Your task to perform on an android device: turn notification dots off Image 0: 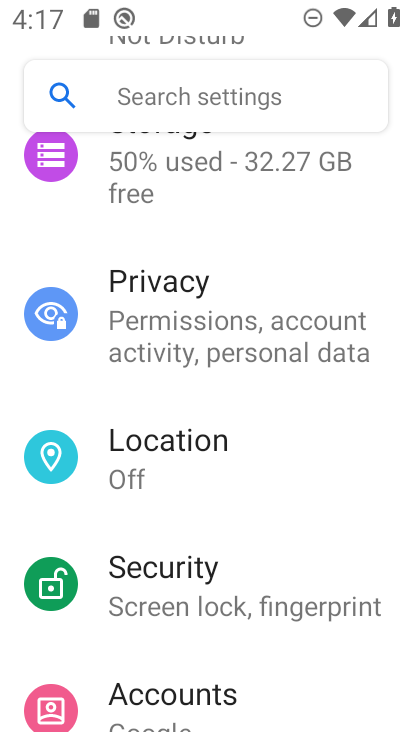
Step 0: press home button
Your task to perform on an android device: turn notification dots off Image 1: 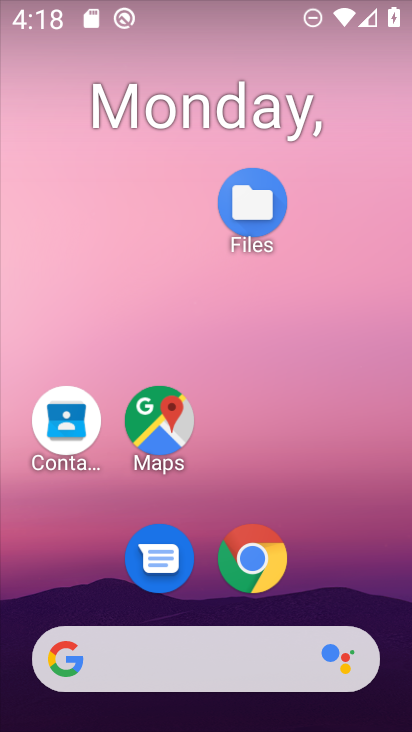
Step 1: drag from (257, 588) to (242, 9)
Your task to perform on an android device: turn notification dots off Image 2: 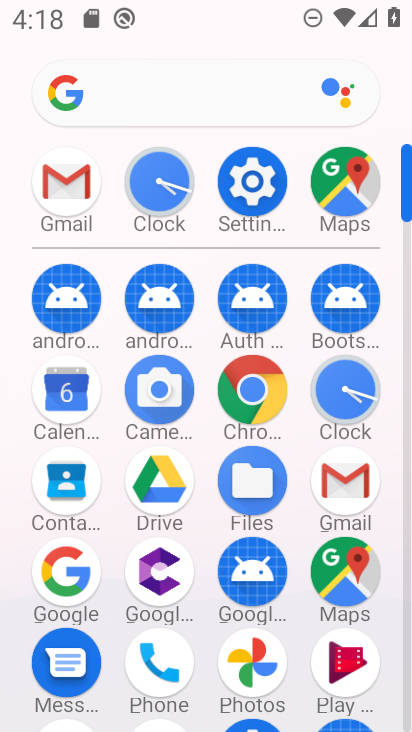
Step 2: click (270, 174)
Your task to perform on an android device: turn notification dots off Image 3: 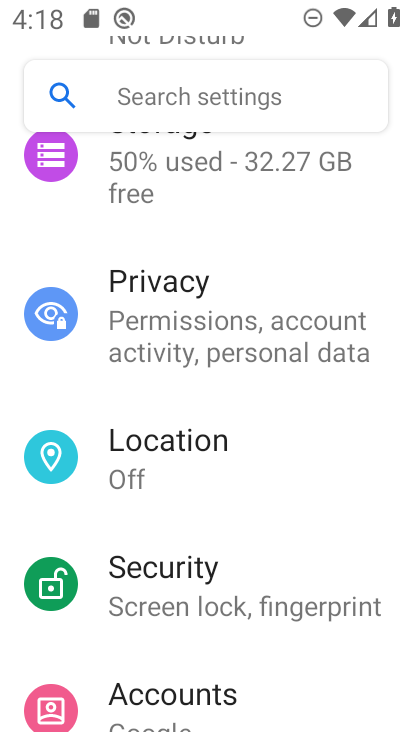
Step 3: drag from (231, 380) to (244, 633)
Your task to perform on an android device: turn notification dots off Image 4: 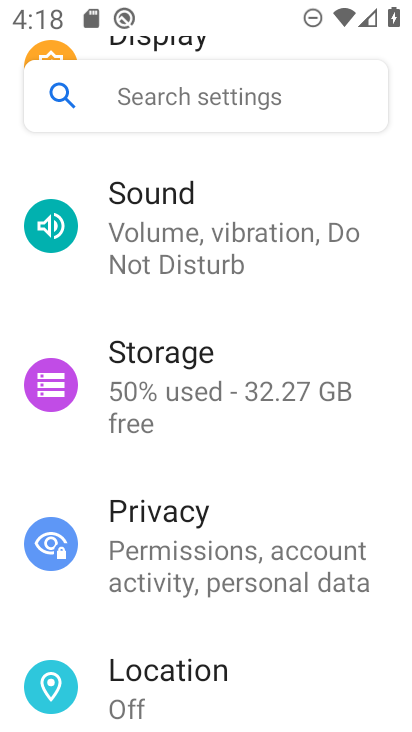
Step 4: drag from (226, 312) to (215, 585)
Your task to perform on an android device: turn notification dots off Image 5: 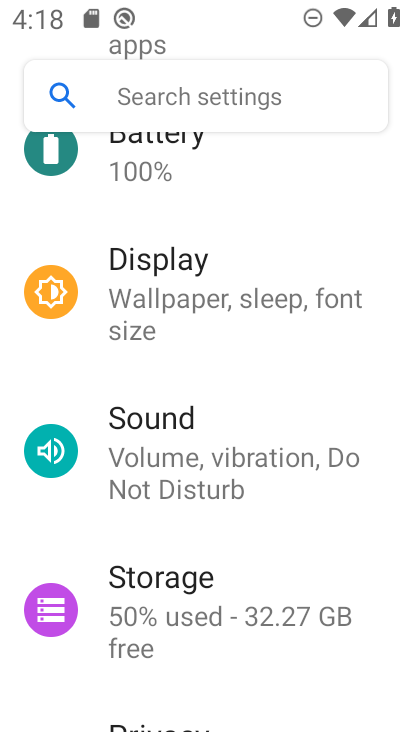
Step 5: drag from (216, 440) to (217, 657)
Your task to perform on an android device: turn notification dots off Image 6: 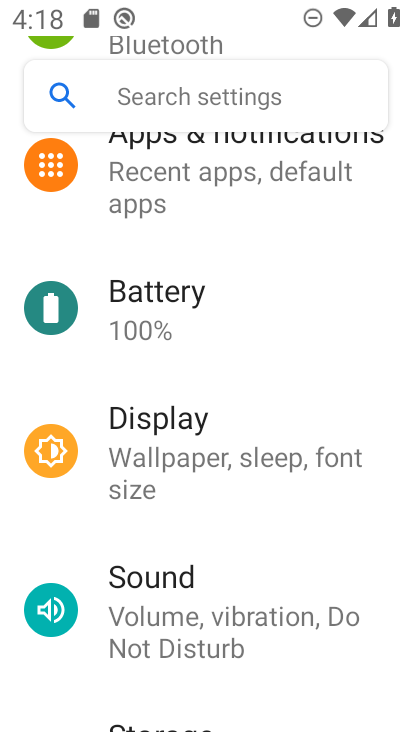
Step 6: click (254, 193)
Your task to perform on an android device: turn notification dots off Image 7: 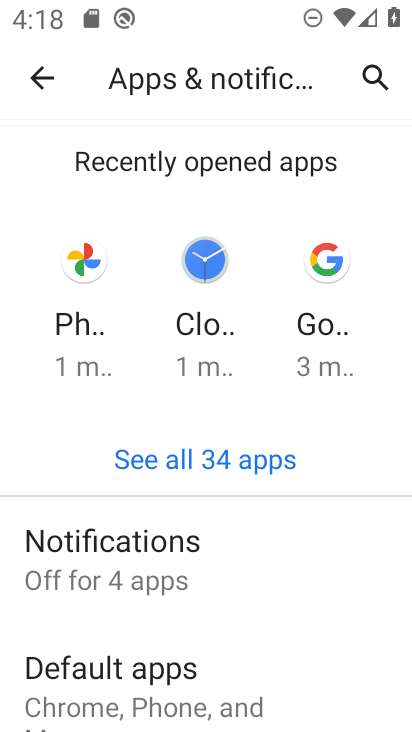
Step 7: click (208, 546)
Your task to perform on an android device: turn notification dots off Image 8: 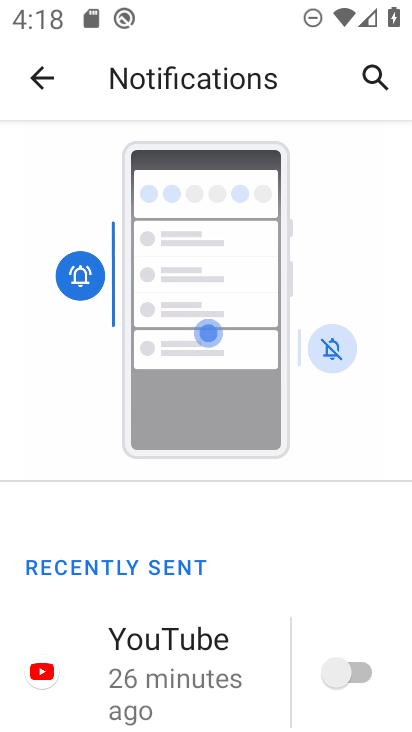
Step 8: drag from (212, 621) to (231, 217)
Your task to perform on an android device: turn notification dots off Image 9: 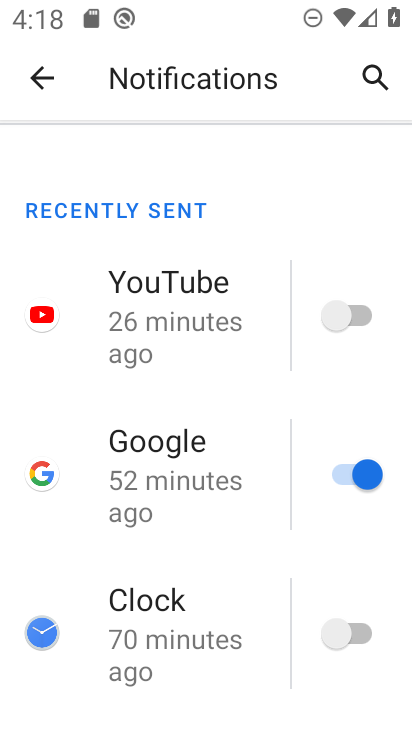
Step 9: drag from (185, 606) to (213, 255)
Your task to perform on an android device: turn notification dots off Image 10: 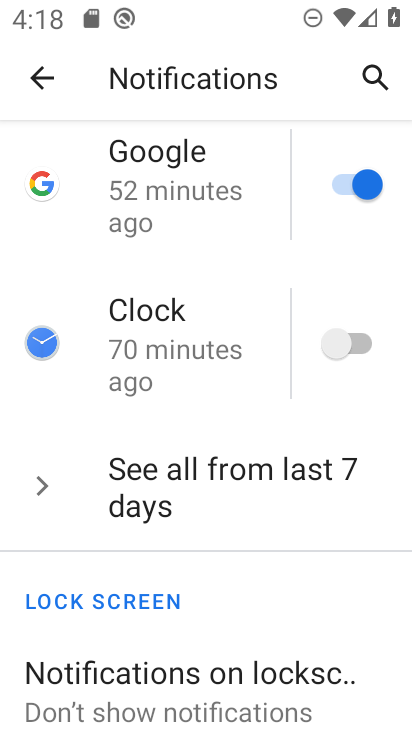
Step 10: drag from (231, 453) to (229, 321)
Your task to perform on an android device: turn notification dots off Image 11: 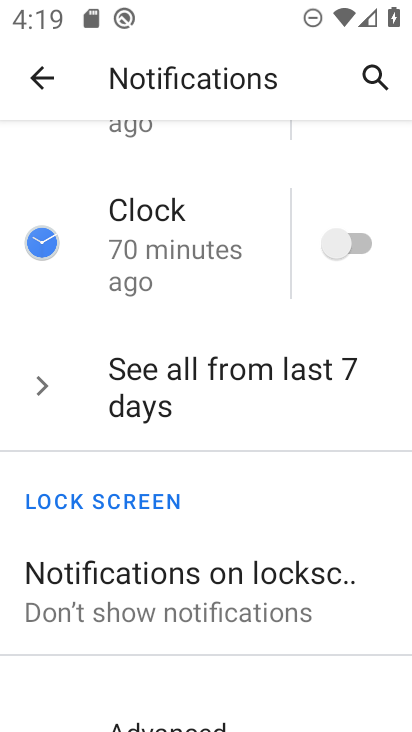
Step 11: drag from (252, 615) to (223, 440)
Your task to perform on an android device: turn notification dots off Image 12: 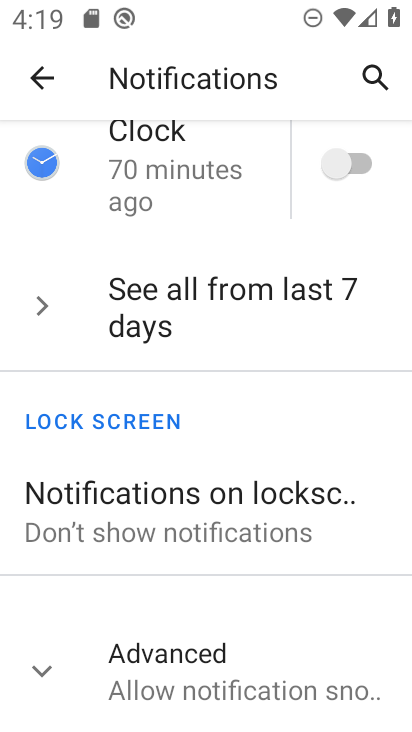
Step 12: click (178, 653)
Your task to perform on an android device: turn notification dots off Image 13: 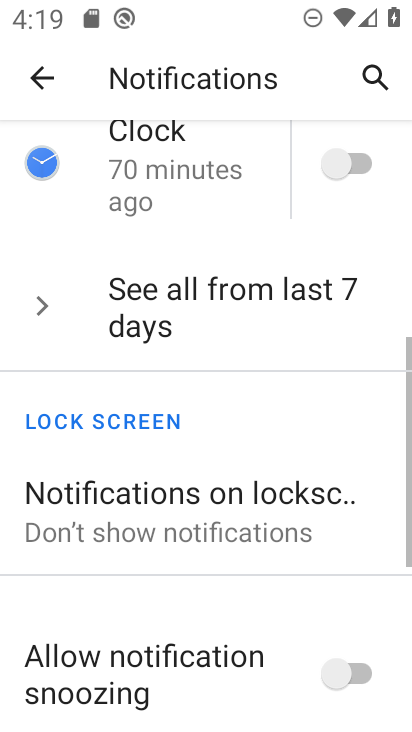
Step 13: drag from (186, 606) to (207, 78)
Your task to perform on an android device: turn notification dots off Image 14: 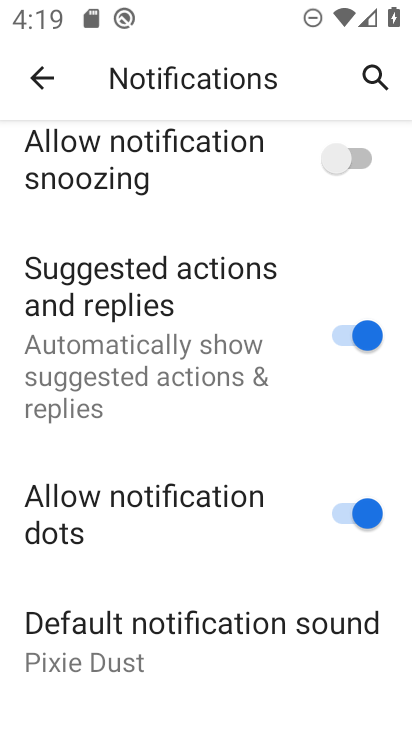
Step 14: click (330, 517)
Your task to perform on an android device: turn notification dots off Image 15: 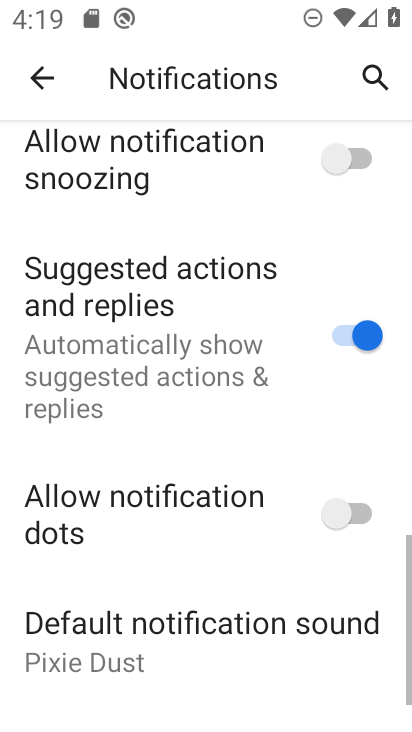
Step 15: task complete